Your task to perform on an android device: open a bookmark in the chrome app Image 0: 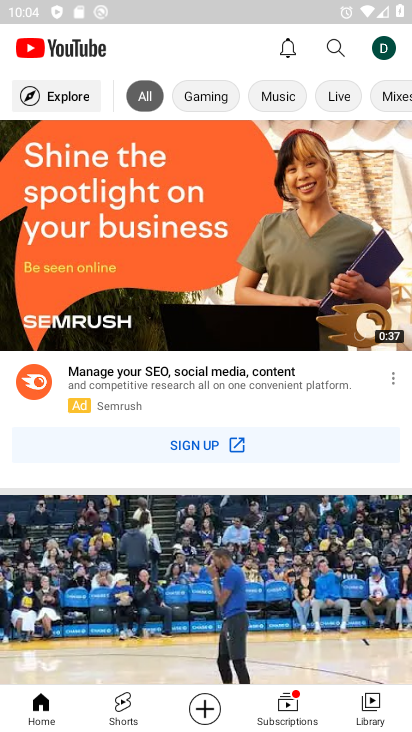
Step 0: press home button
Your task to perform on an android device: open a bookmark in the chrome app Image 1: 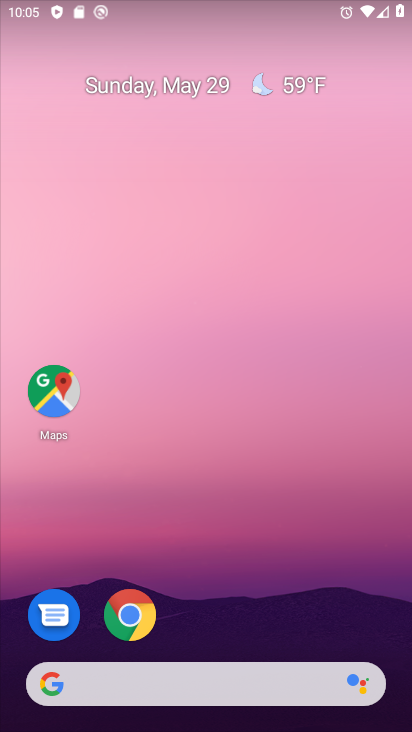
Step 1: click (125, 615)
Your task to perform on an android device: open a bookmark in the chrome app Image 2: 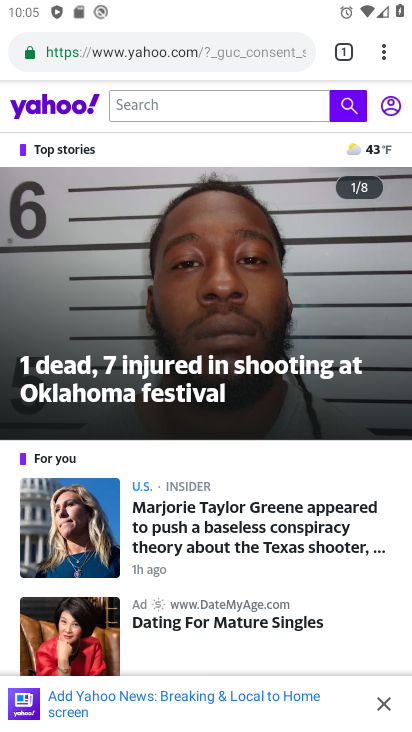
Step 2: click (372, 53)
Your task to perform on an android device: open a bookmark in the chrome app Image 3: 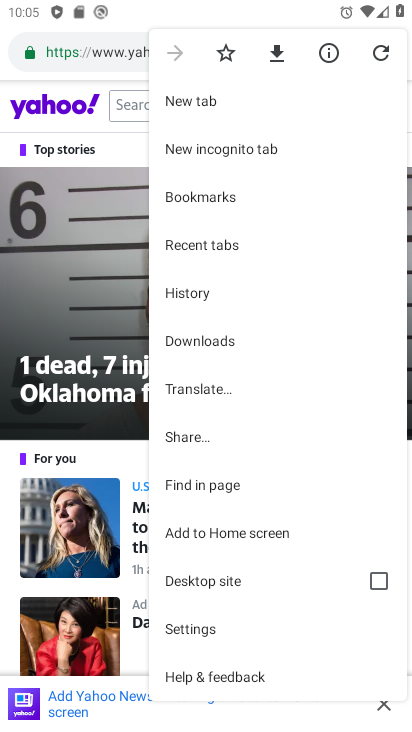
Step 3: click (248, 207)
Your task to perform on an android device: open a bookmark in the chrome app Image 4: 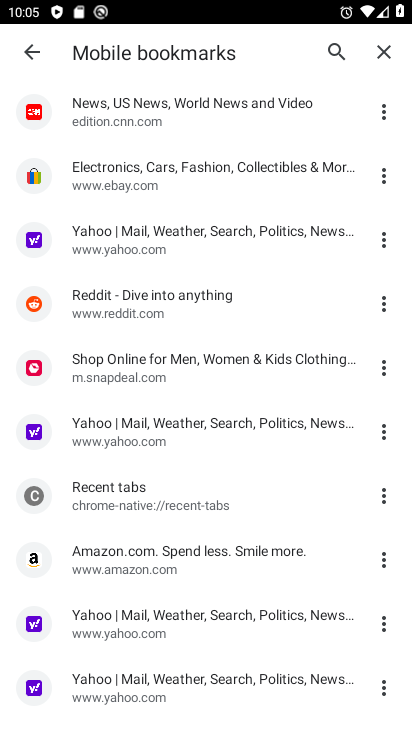
Step 4: click (146, 556)
Your task to perform on an android device: open a bookmark in the chrome app Image 5: 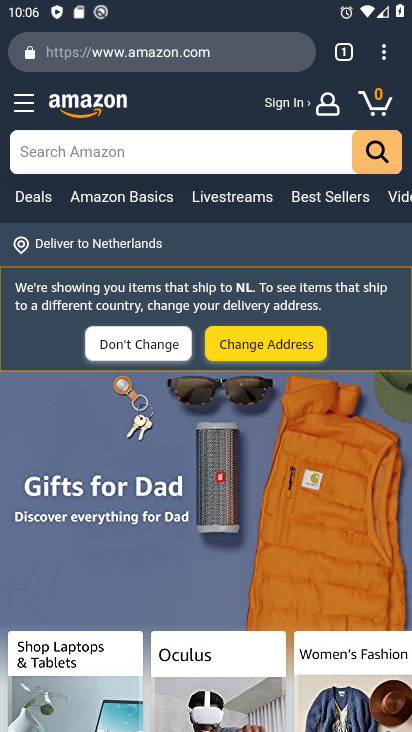
Step 5: task complete